Your task to perform on an android device: check out phone information Image 0: 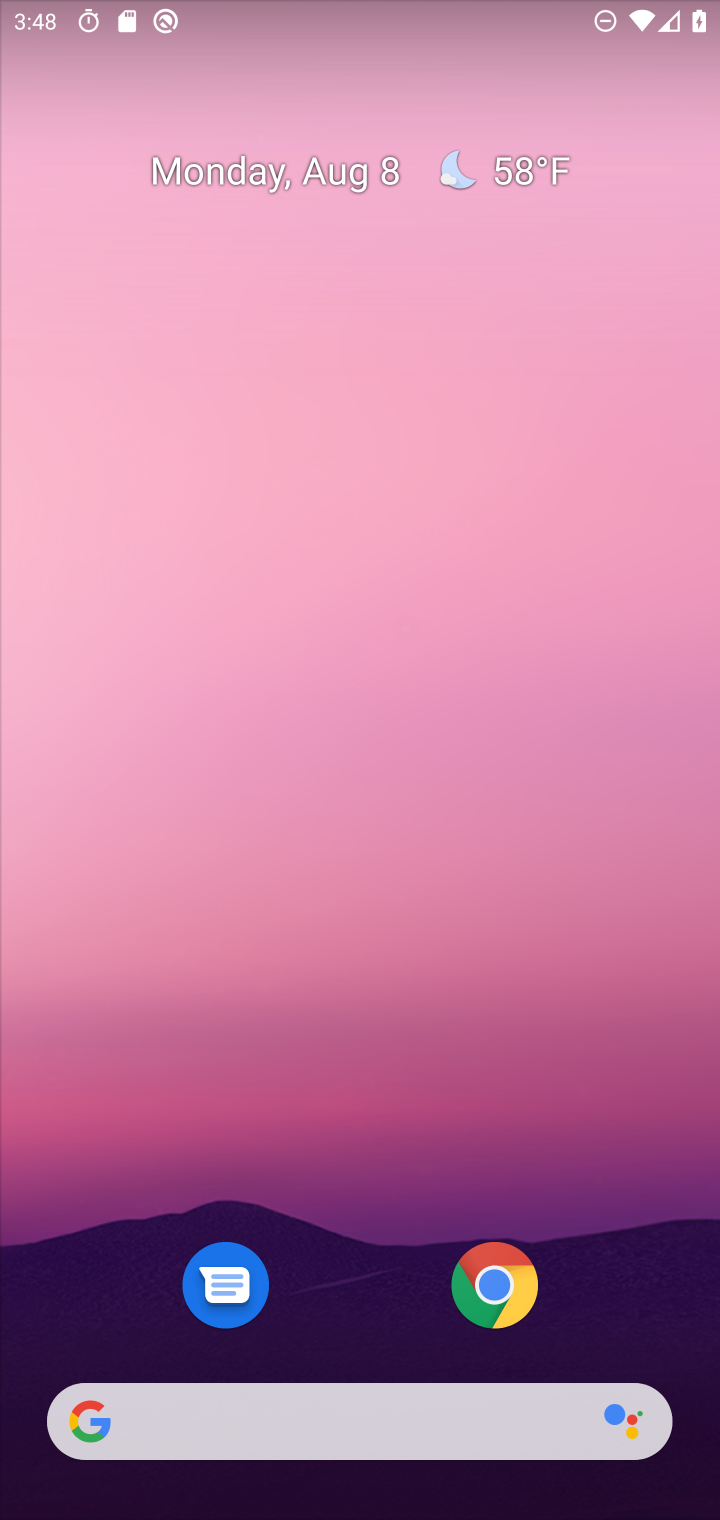
Step 0: drag from (322, 1308) to (553, 60)
Your task to perform on an android device: check out phone information Image 1: 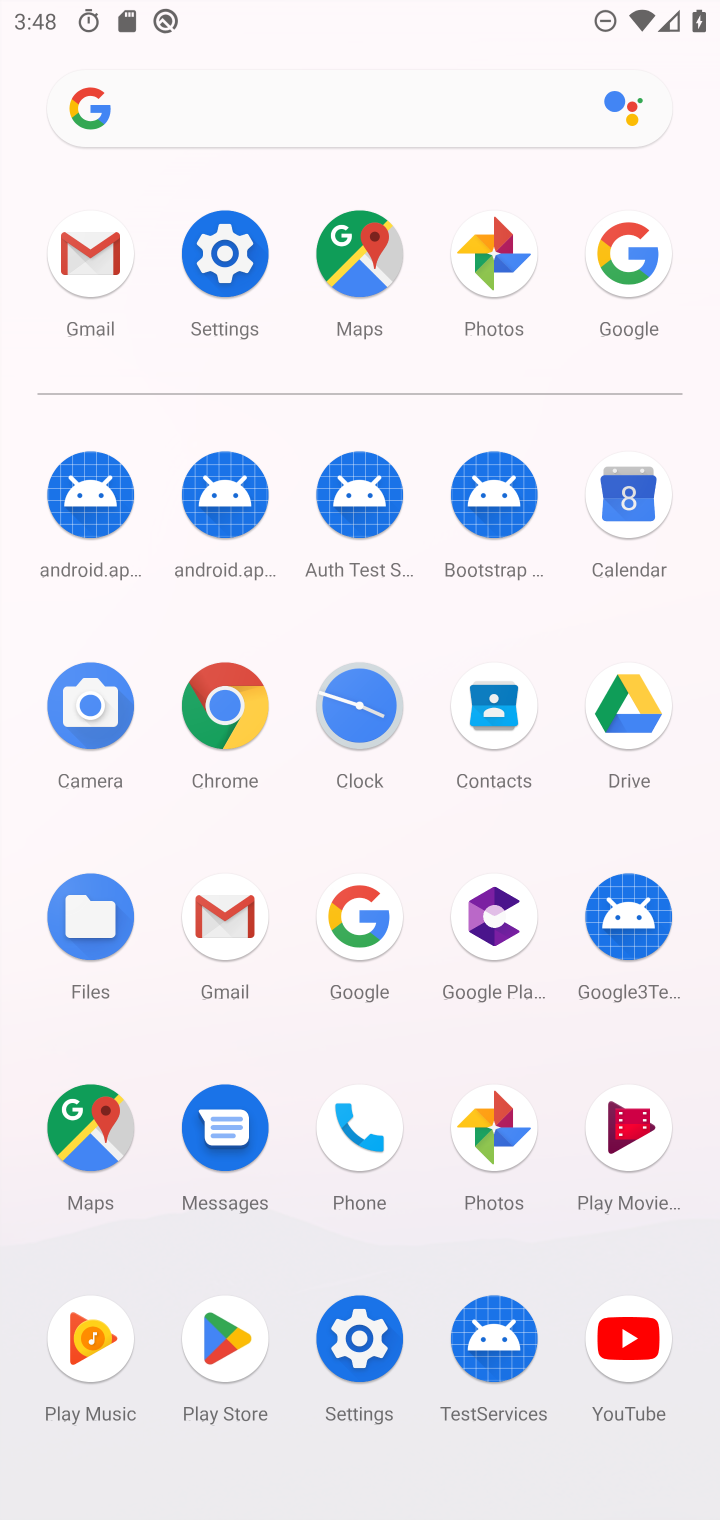
Step 1: click (215, 246)
Your task to perform on an android device: check out phone information Image 2: 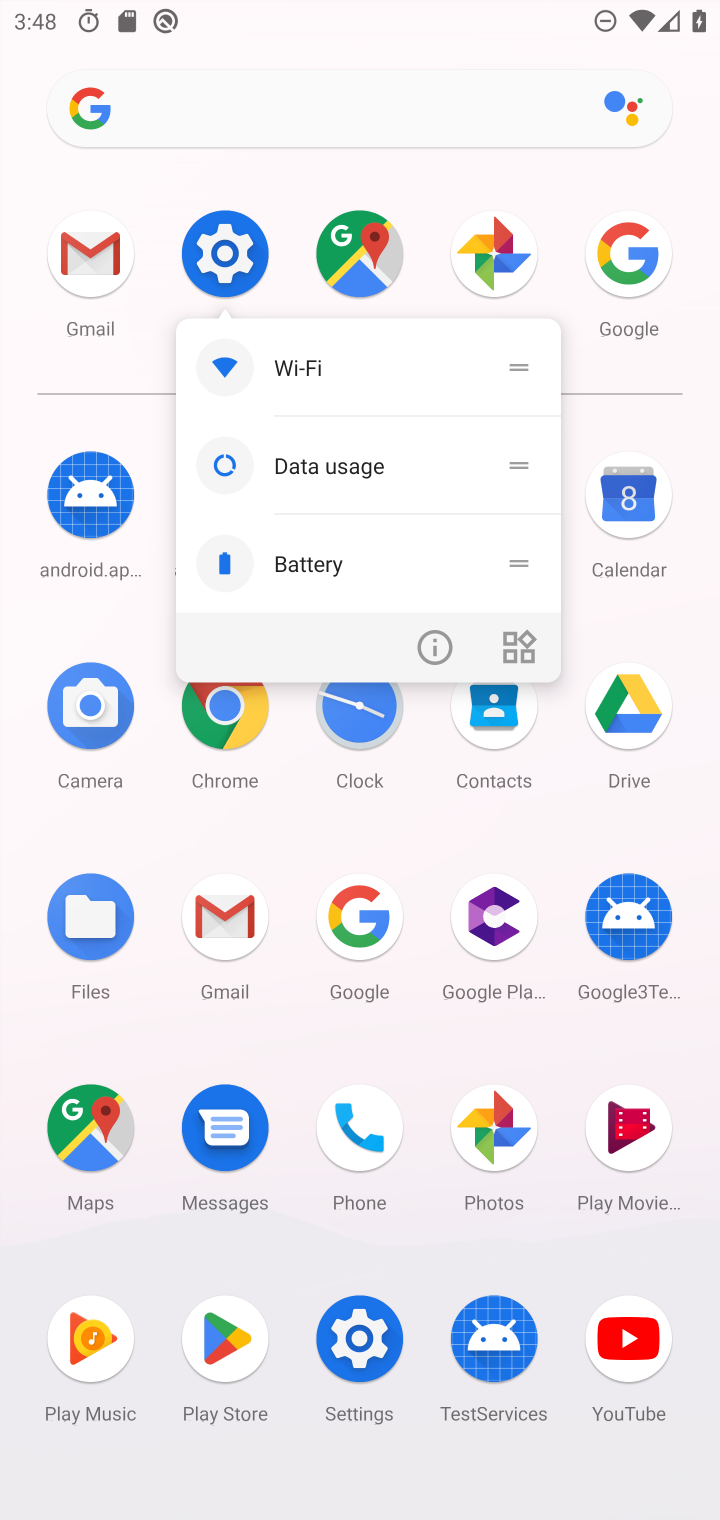
Step 2: click (231, 222)
Your task to perform on an android device: check out phone information Image 3: 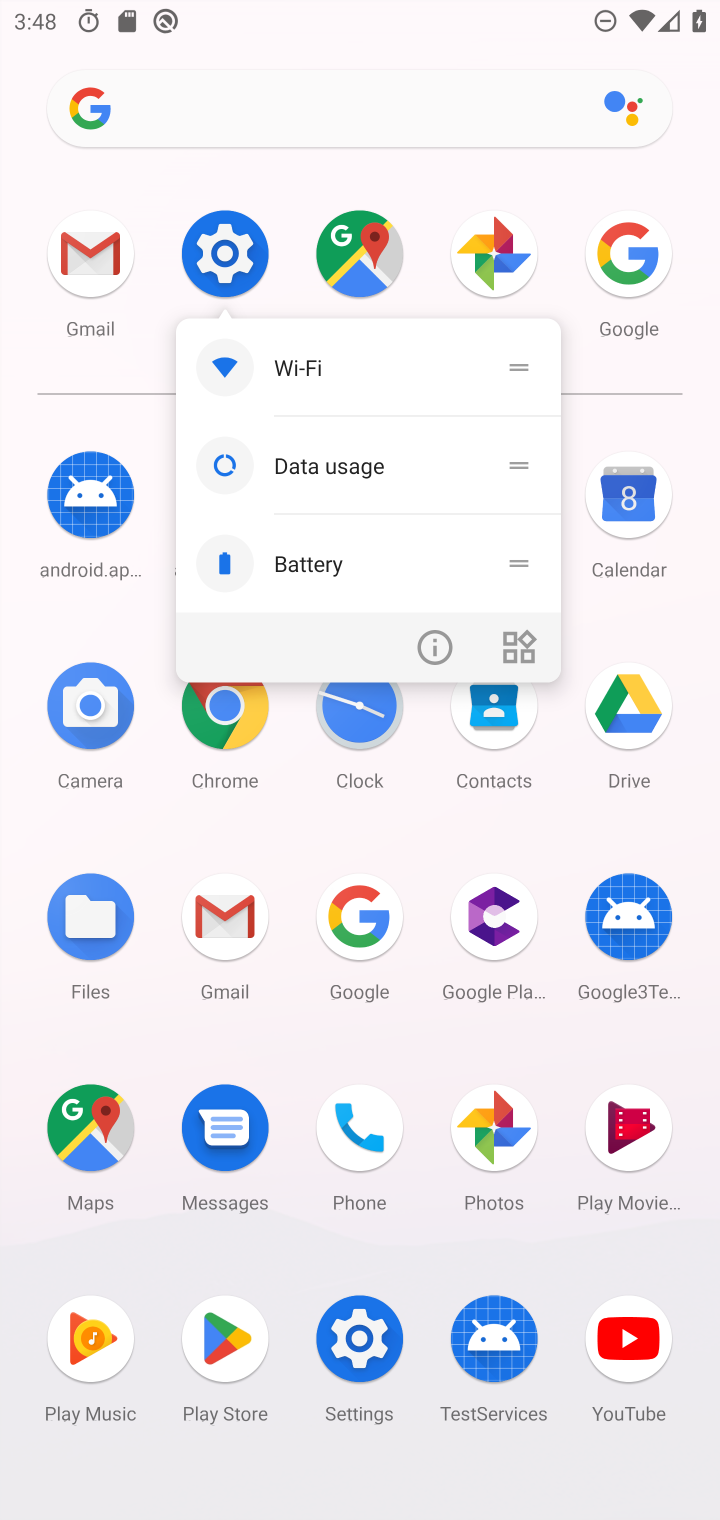
Step 3: click (235, 274)
Your task to perform on an android device: check out phone information Image 4: 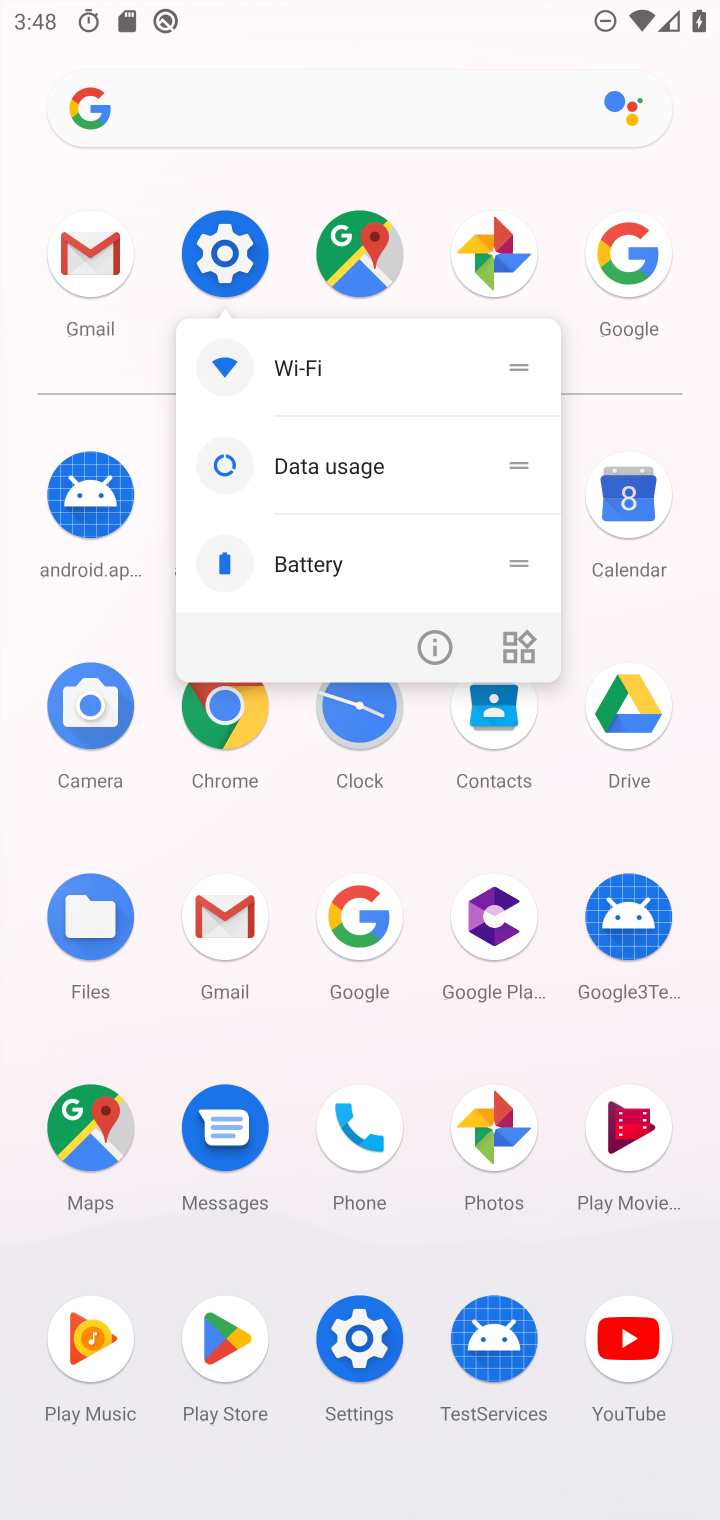
Step 4: click (232, 246)
Your task to perform on an android device: check out phone information Image 5: 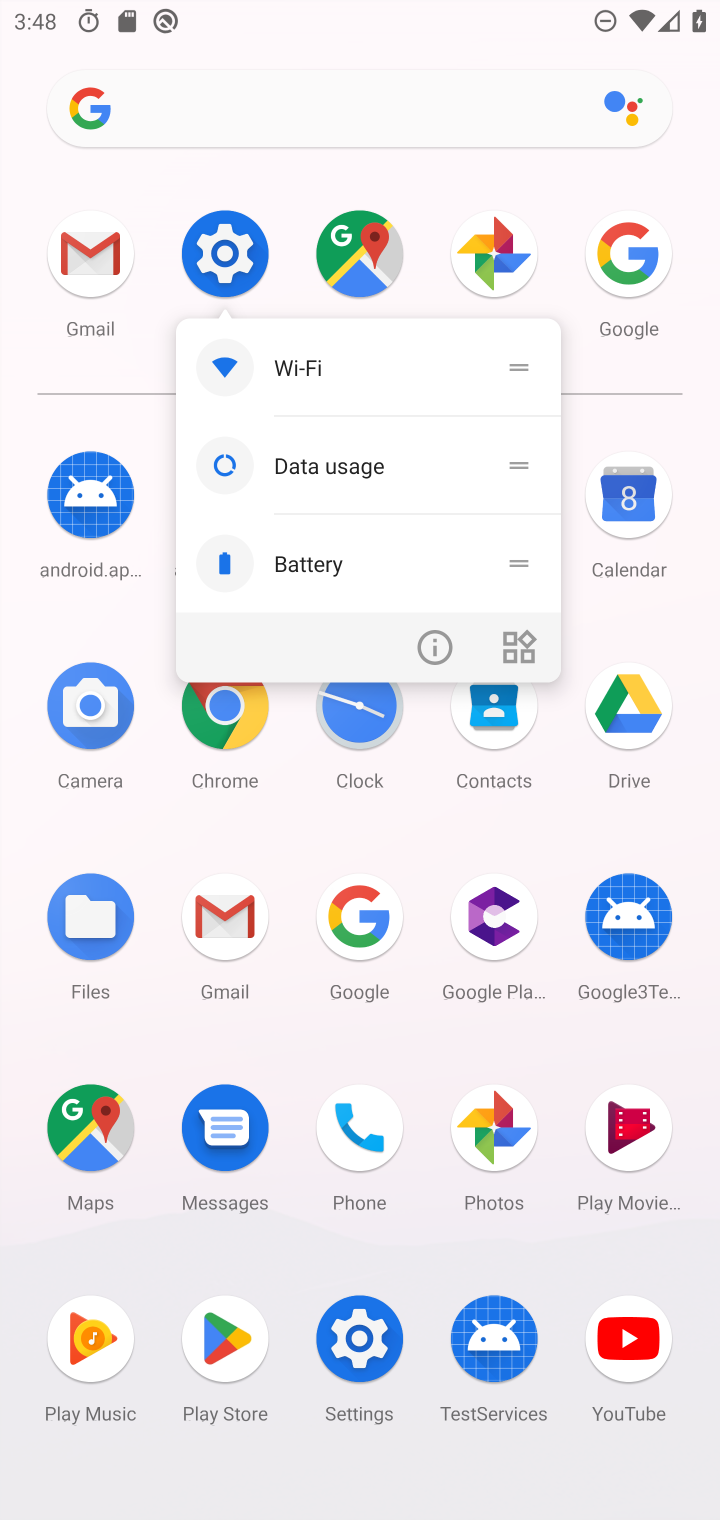
Step 5: click (231, 224)
Your task to perform on an android device: check out phone information Image 6: 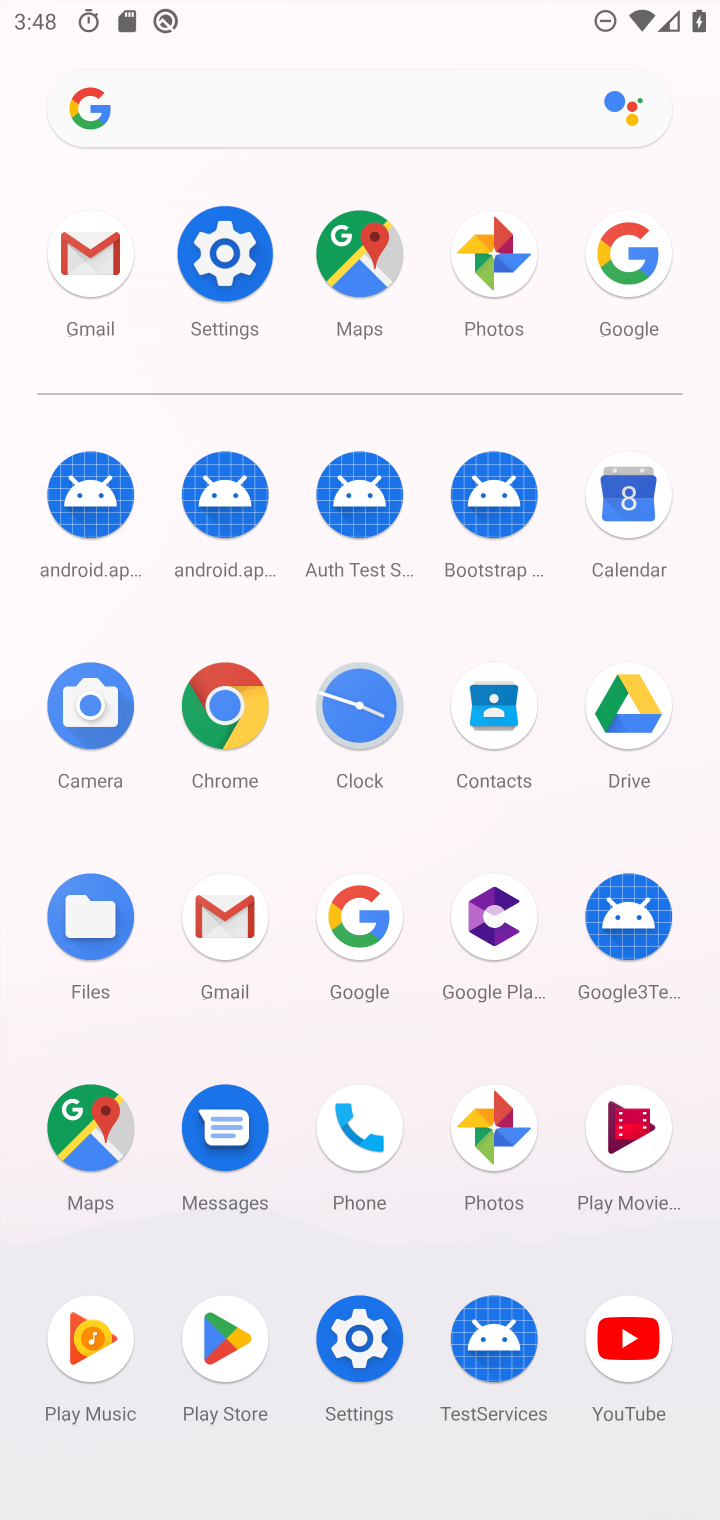
Step 6: click (217, 250)
Your task to perform on an android device: check out phone information Image 7: 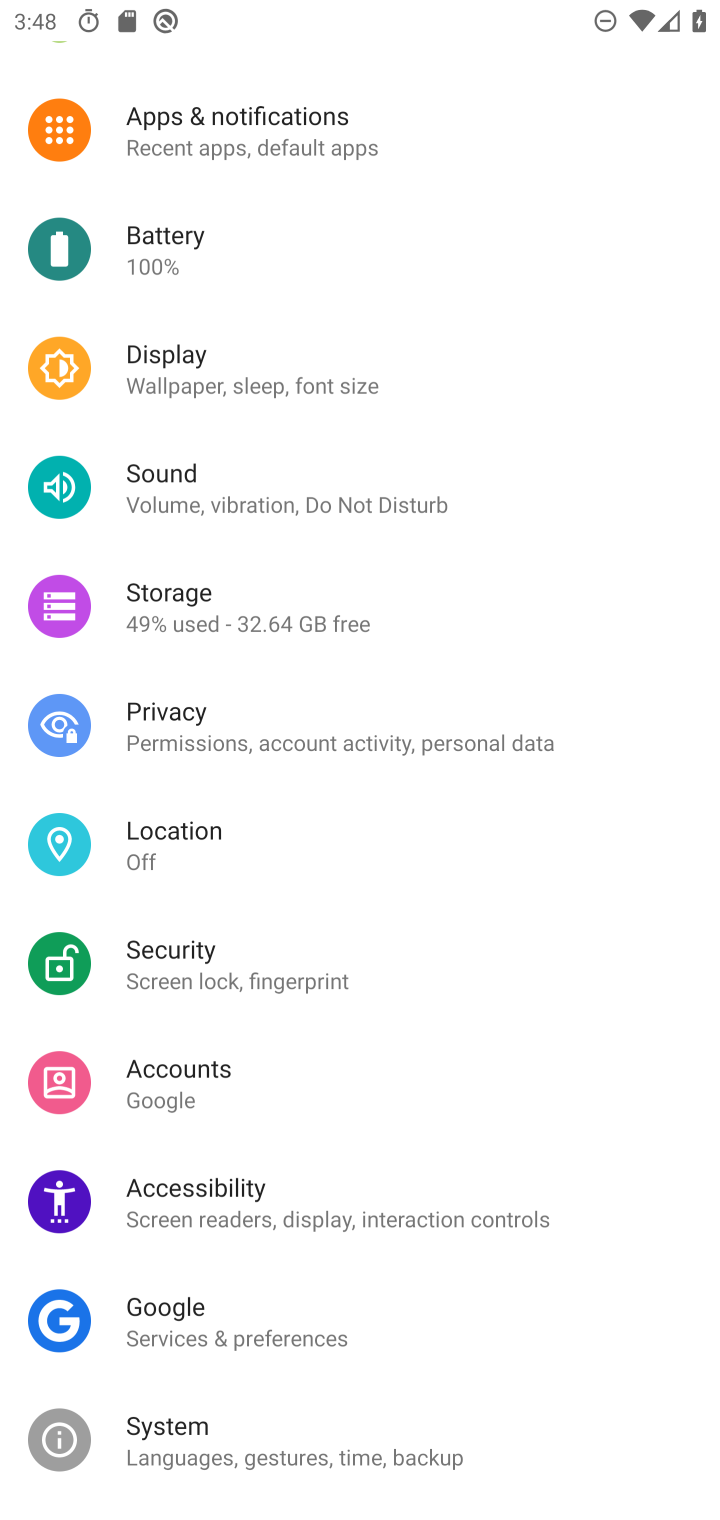
Step 7: drag from (280, 1485) to (499, 177)
Your task to perform on an android device: check out phone information Image 8: 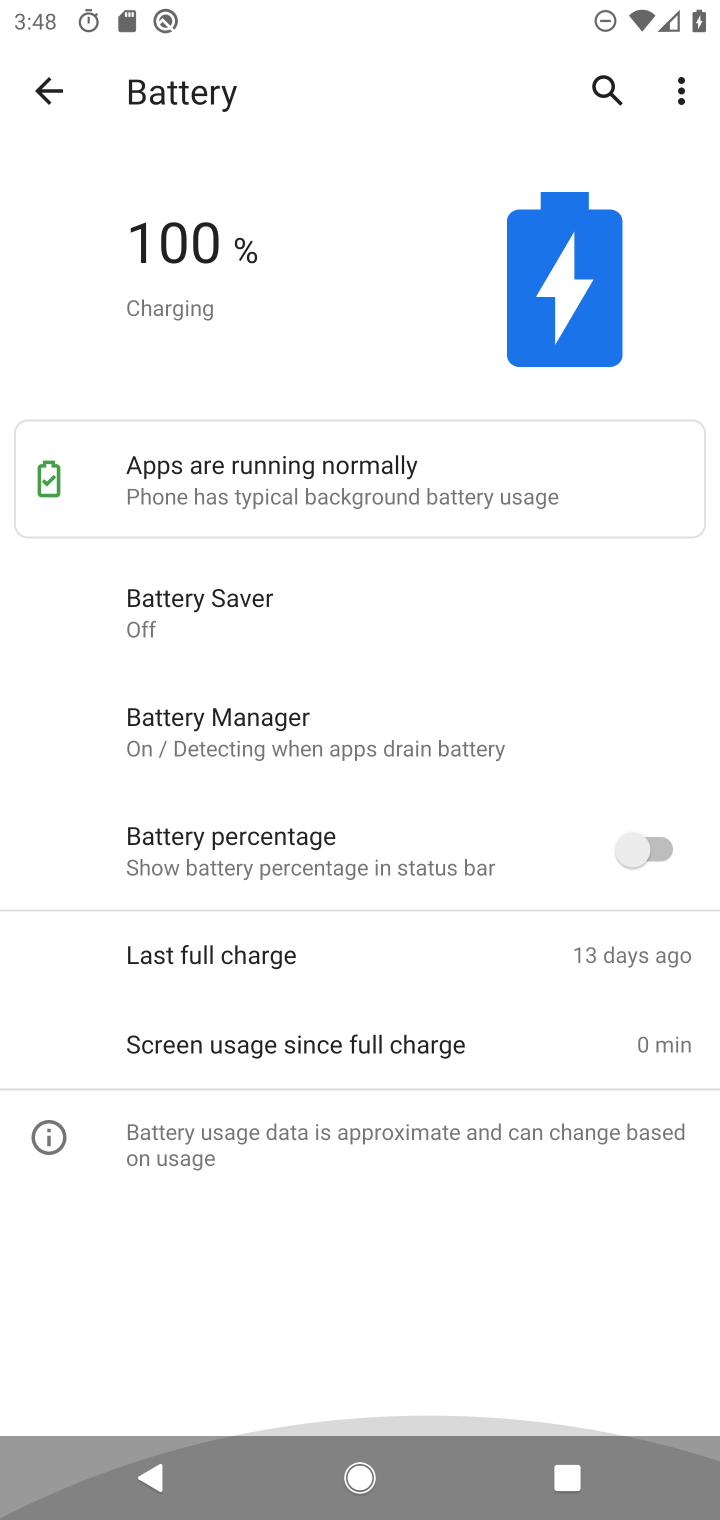
Step 8: click (61, 75)
Your task to perform on an android device: check out phone information Image 9: 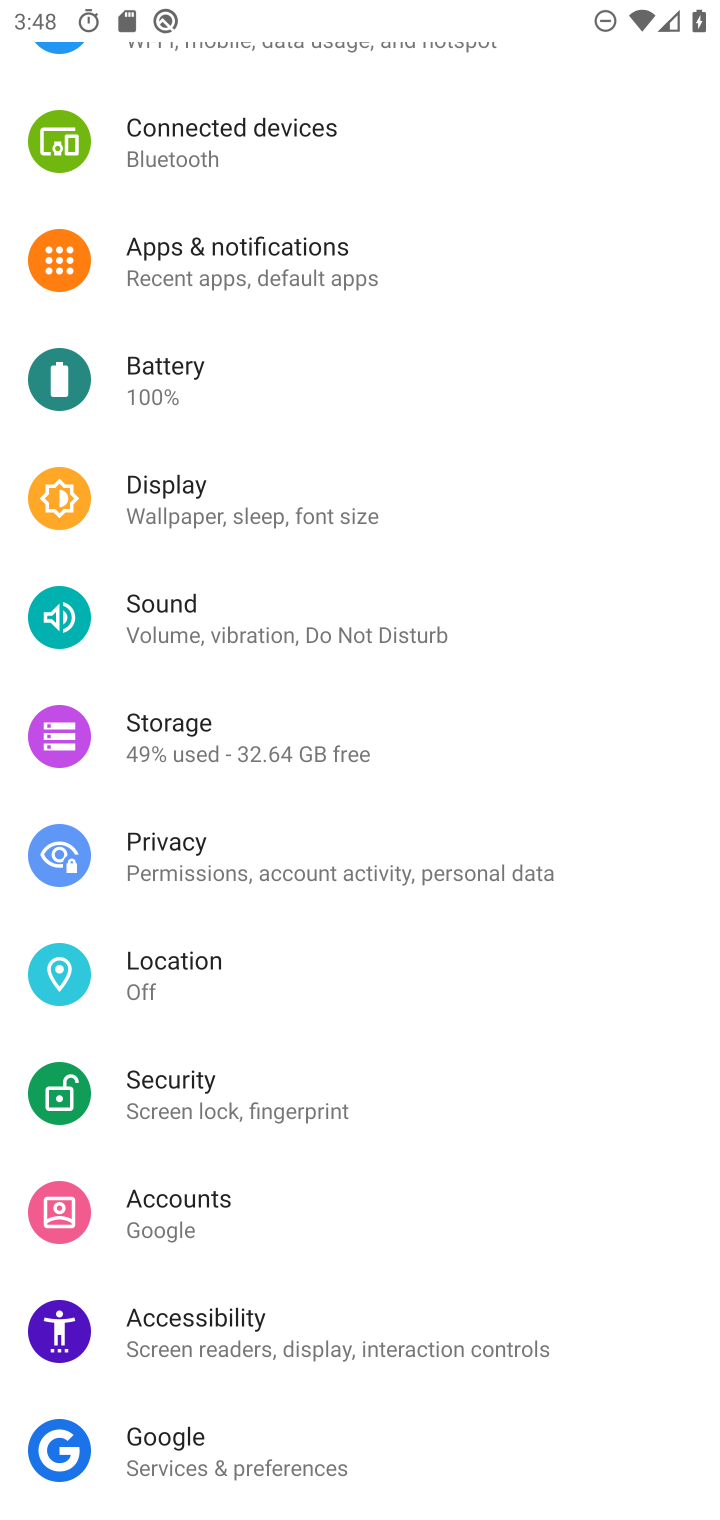
Step 9: drag from (367, 1198) to (568, 36)
Your task to perform on an android device: check out phone information Image 10: 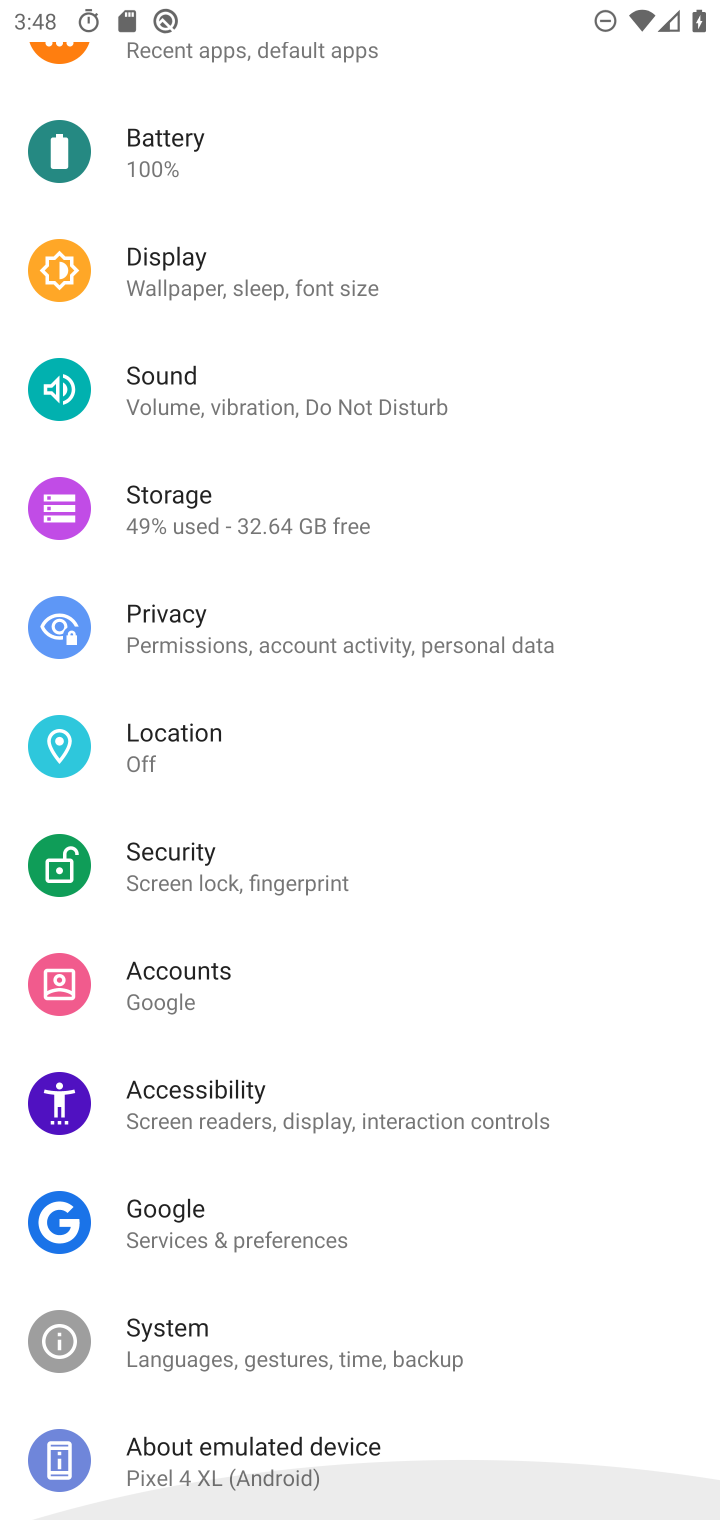
Step 10: drag from (241, 1369) to (416, 84)
Your task to perform on an android device: check out phone information Image 11: 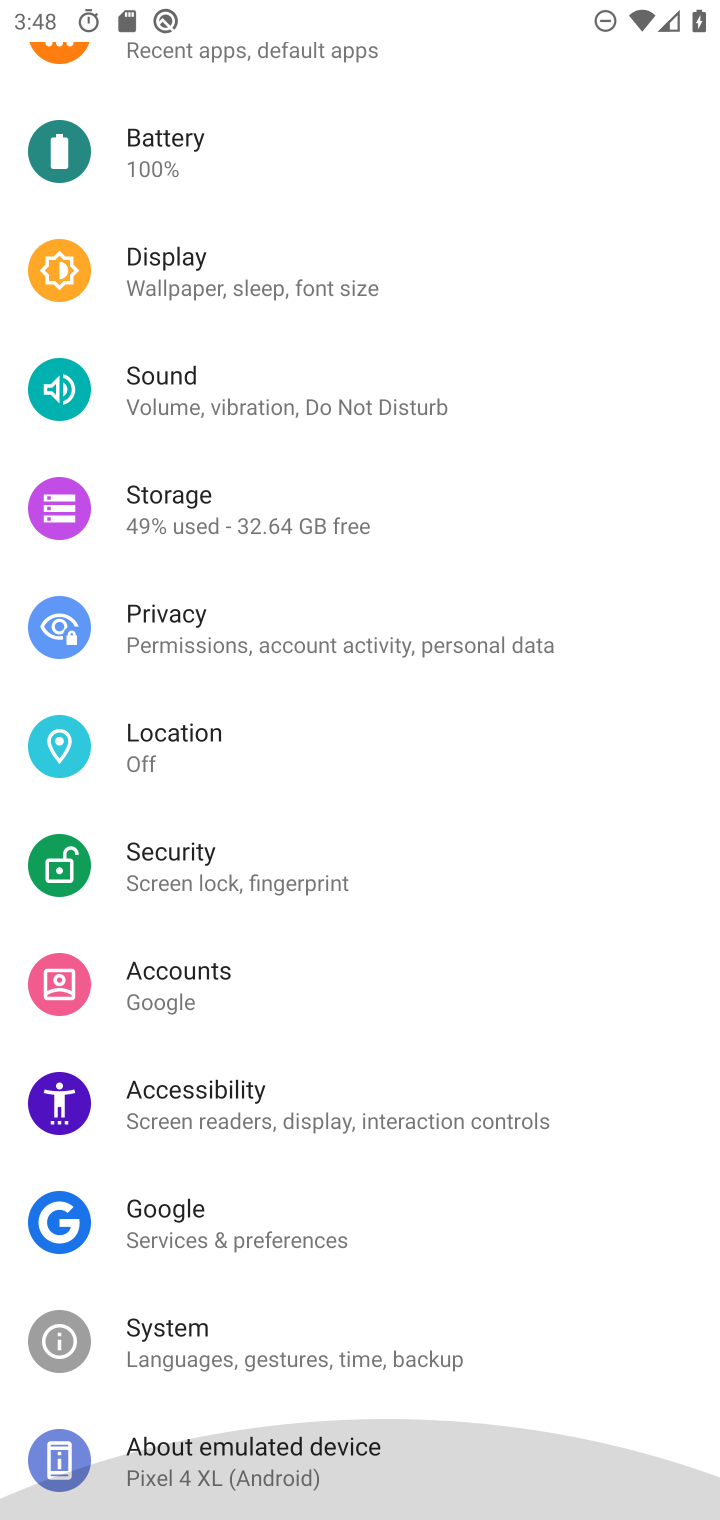
Step 11: click (314, 1462)
Your task to perform on an android device: check out phone information Image 12: 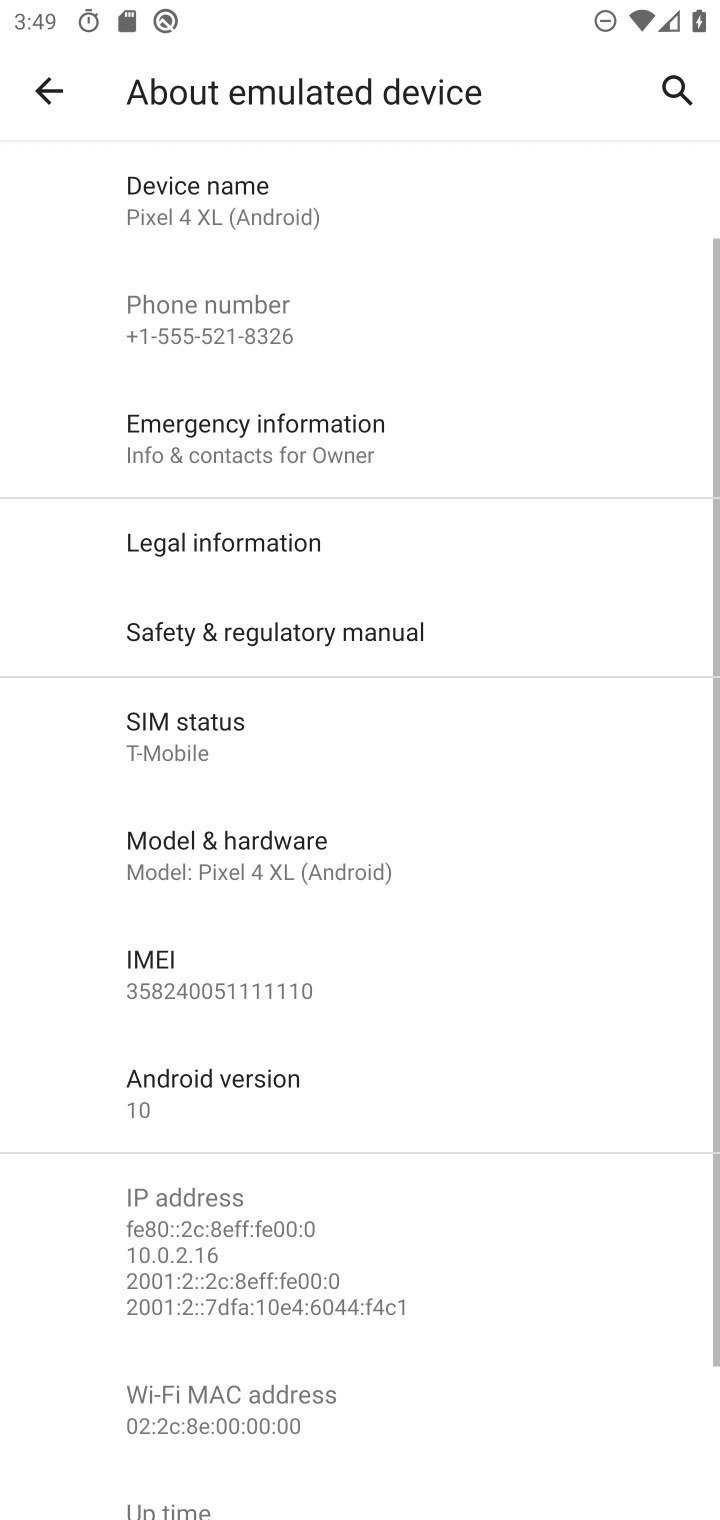
Step 12: task complete